Your task to perform on an android device: Go to battery settings Image 0: 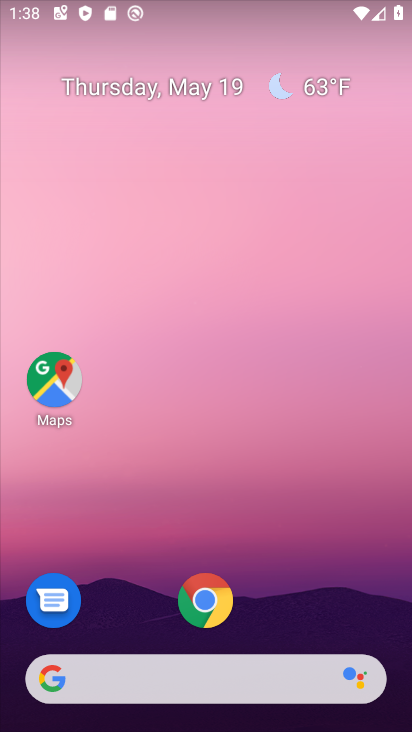
Step 0: drag from (367, 586) to (326, 115)
Your task to perform on an android device: Go to battery settings Image 1: 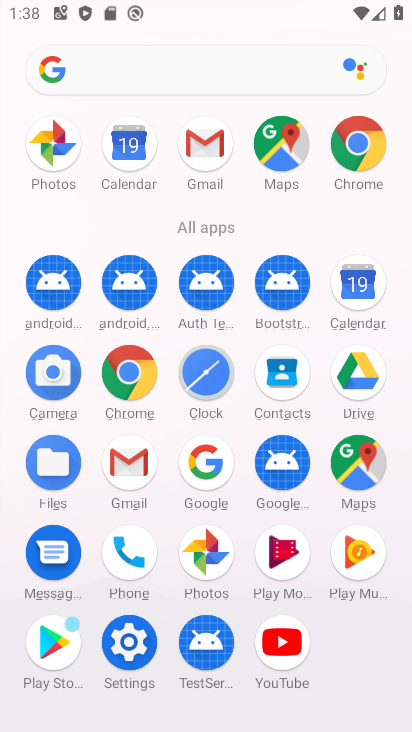
Step 1: click (128, 653)
Your task to perform on an android device: Go to battery settings Image 2: 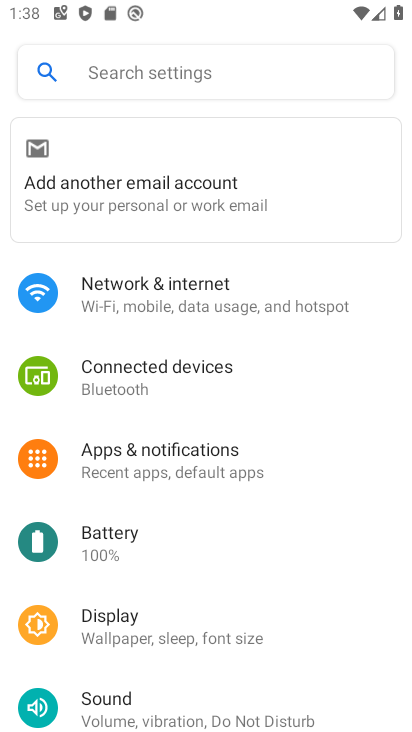
Step 2: click (150, 534)
Your task to perform on an android device: Go to battery settings Image 3: 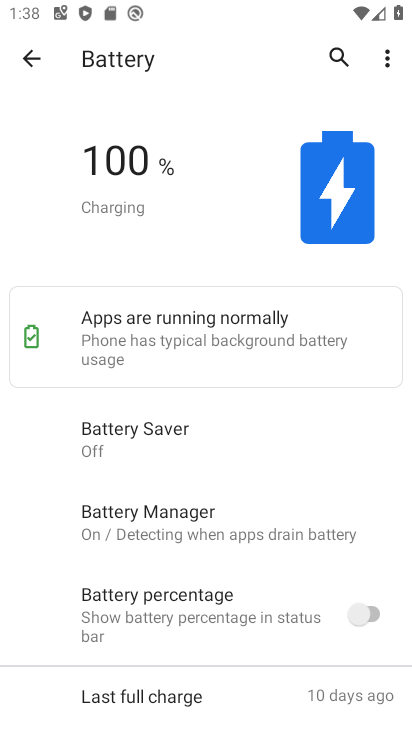
Step 3: task complete